Your task to perform on an android device: Open Yahoo.com Image 0: 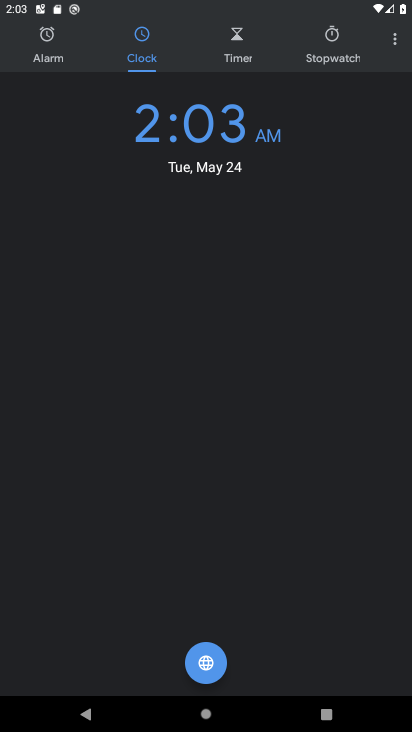
Step 0: press home button
Your task to perform on an android device: Open Yahoo.com Image 1: 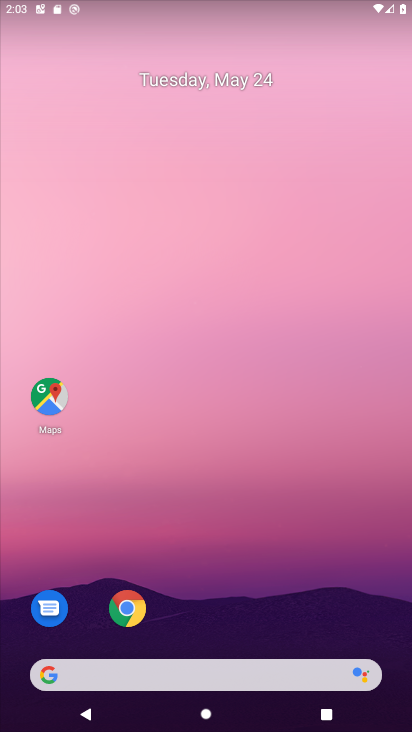
Step 1: click (197, 678)
Your task to perform on an android device: Open Yahoo.com Image 2: 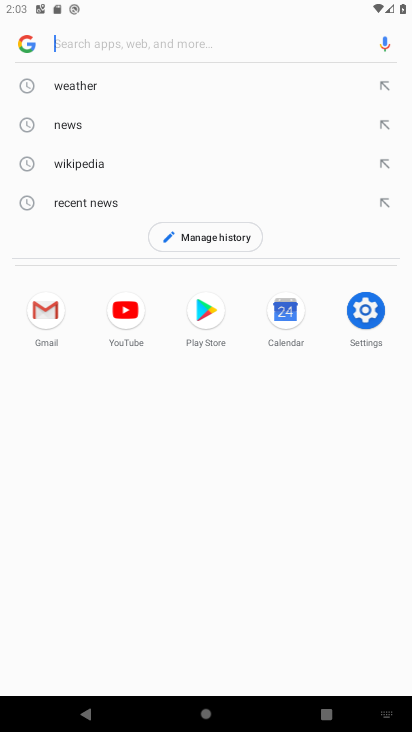
Step 2: type "yahoo.com"
Your task to perform on an android device: Open Yahoo.com Image 3: 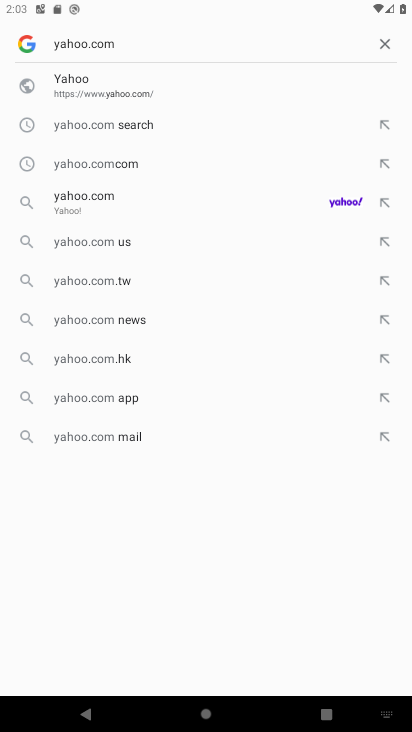
Step 3: click (234, 84)
Your task to perform on an android device: Open Yahoo.com Image 4: 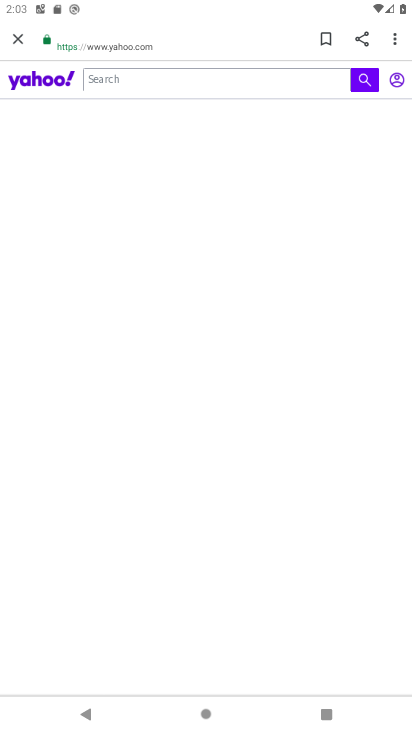
Step 4: task complete